Your task to perform on an android device: Go to internet settings Image 0: 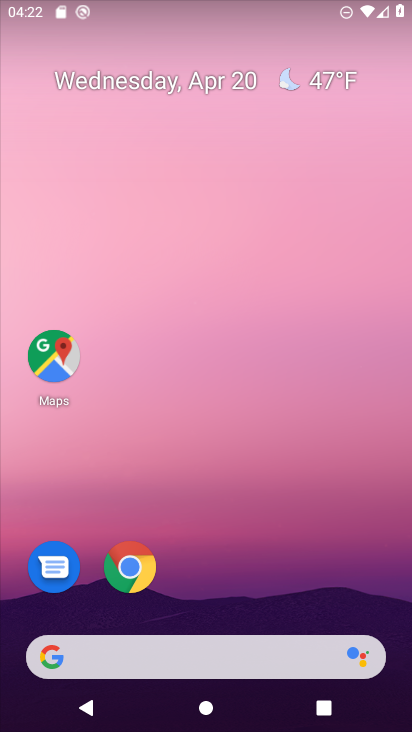
Step 0: drag from (171, 16) to (99, 598)
Your task to perform on an android device: Go to internet settings Image 1: 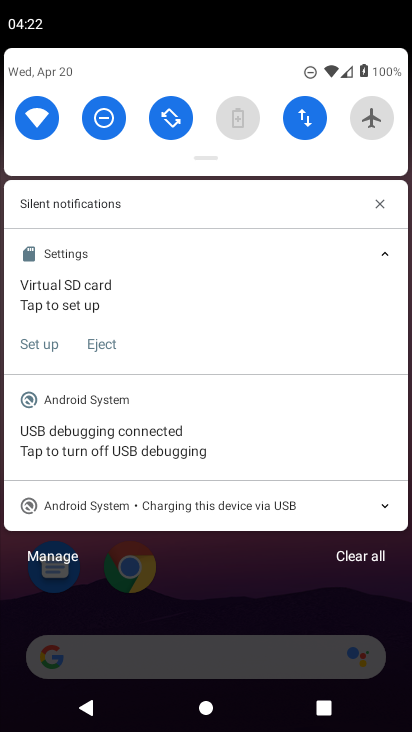
Step 1: drag from (192, 90) to (206, 594)
Your task to perform on an android device: Go to internet settings Image 2: 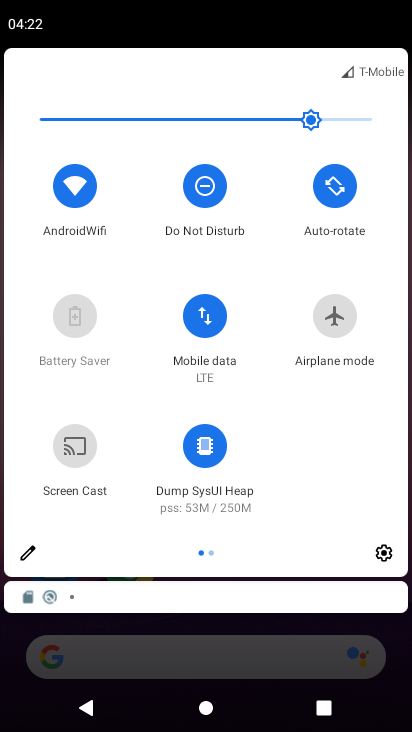
Step 2: click (381, 549)
Your task to perform on an android device: Go to internet settings Image 3: 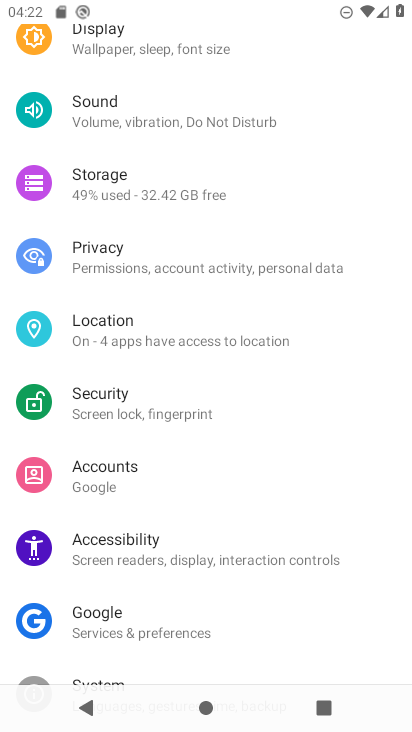
Step 3: drag from (158, 130) to (173, 705)
Your task to perform on an android device: Go to internet settings Image 4: 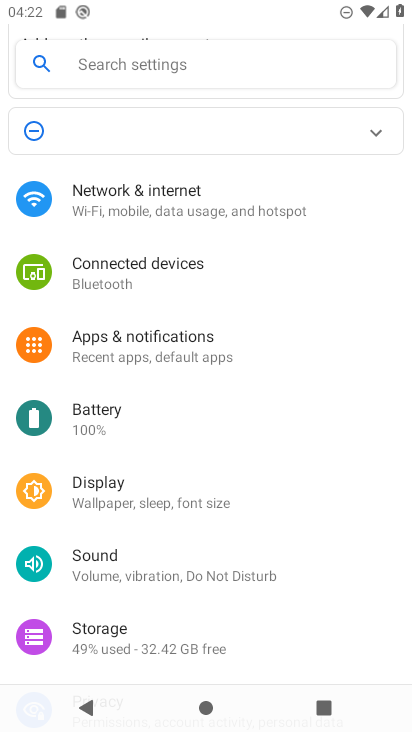
Step 4: click (151, 216)
Your task to perform on an android device: Go to internet settings Image 5: 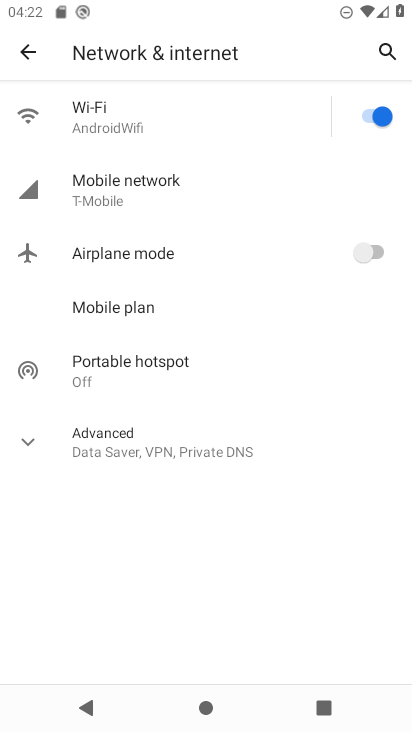
Step 5: task complete